Your task to perform on an android device: Open the calendar and show me this week's events Image 0: 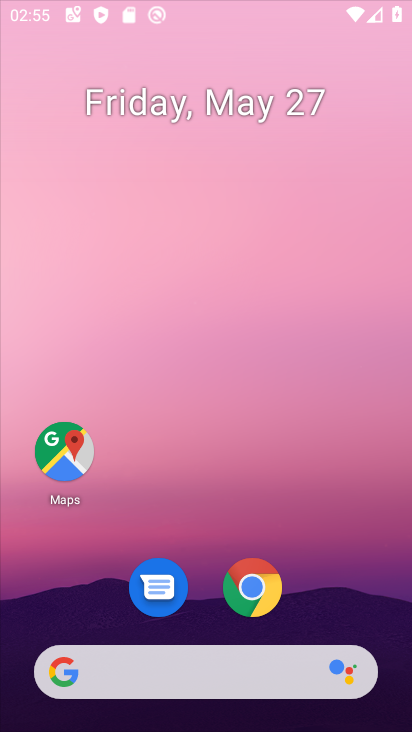
Step 0: press home button
Your task to perform on an android device: Open the calendar and show me this week's events Image 1: 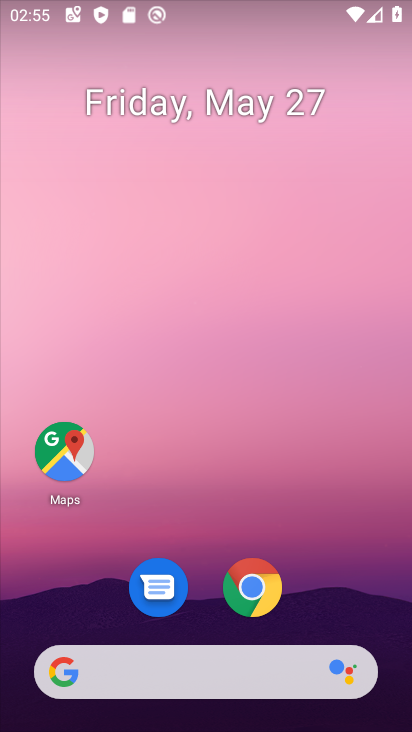
Step 1: drag from (236, 489) to (236, 25)
Your task to perform on an android device: Open the calendar and show me this week's events Image 2: 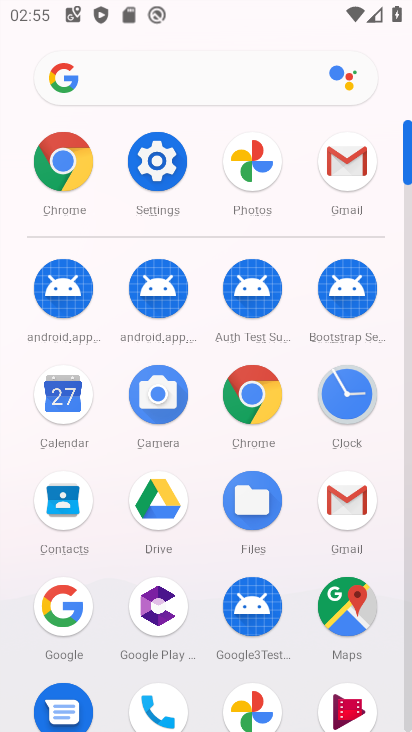
Step 2: click (55, 378)
Your task to perform on an android device: Open the calendar and show me this week's events Image 3: 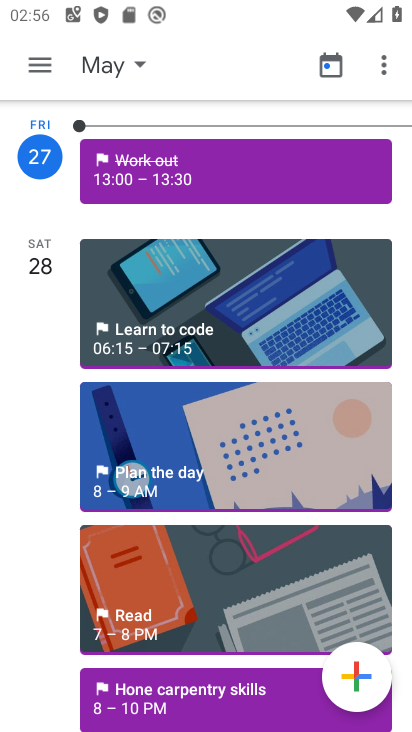
Step 3: click (44, 68)
Your task to perform on an android device: Open the calendar and show me this week's events Image 4: 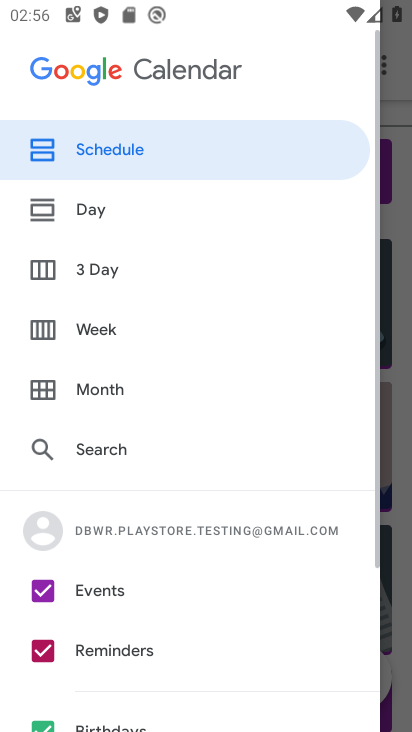
Step 4: task complete